Your task to perform on an android device: Search for "razer kraken" on target, select the first entry, add it to the cart, then select checkout. Image 0: 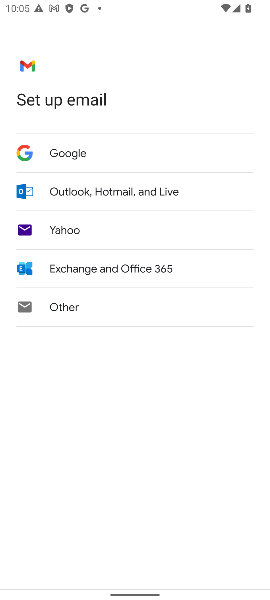
Step 0: task complete